Your task to perform on an android device: Empty the shopping cart on bestbuy.com. Search for alienware area 51 on bestbuy.com, select the first entry, and add it to the cart. Image 0: 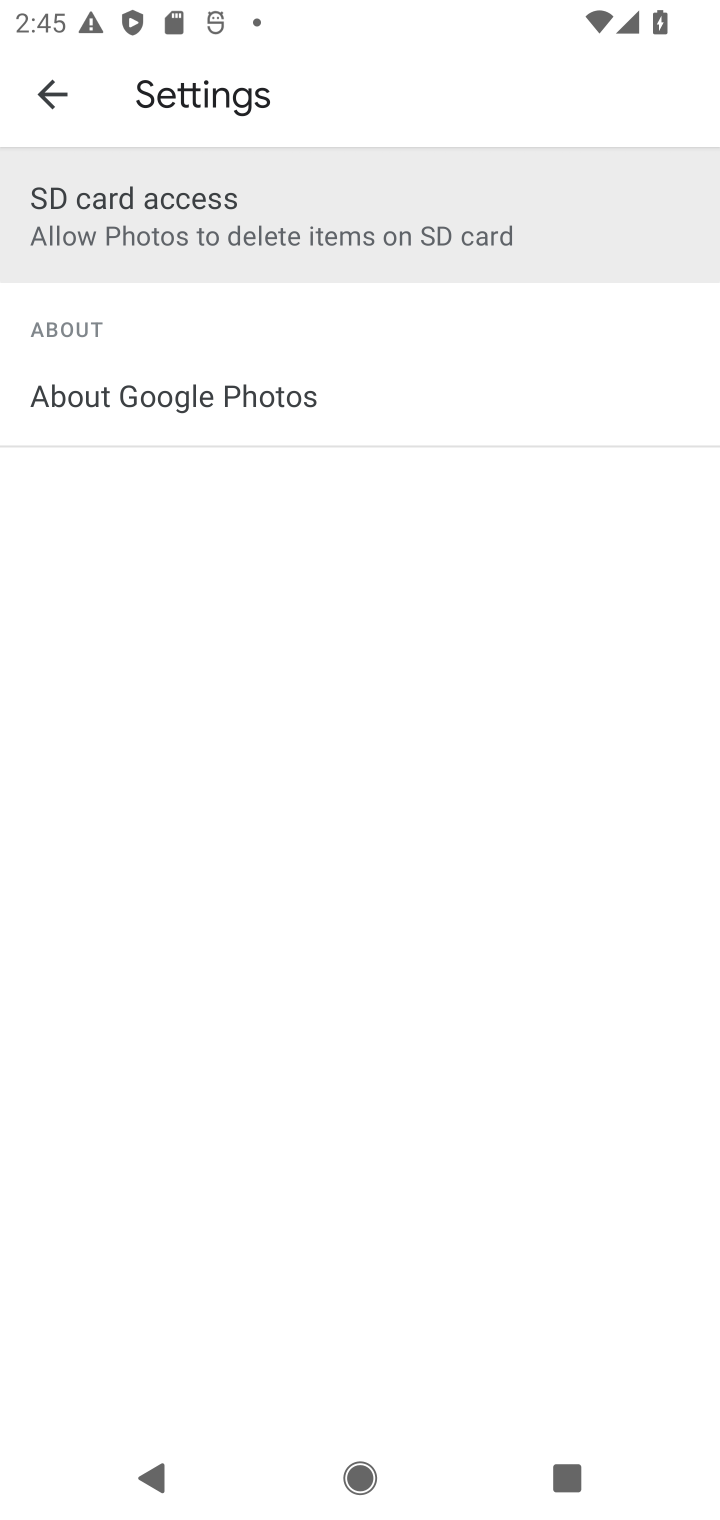
Step 0: task complete